Your task to perform on an android device: manage bookmarks in the chrome app Image 0: 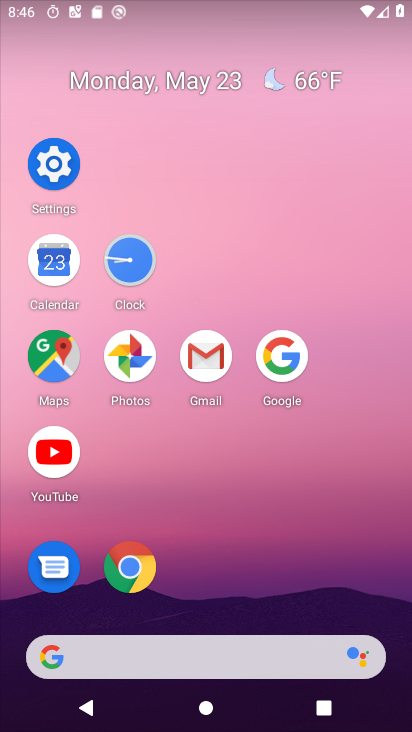
Step 0: click (145, 566)
Your task to perform on an android device: manage bookmarks in the chrome app Image 1: 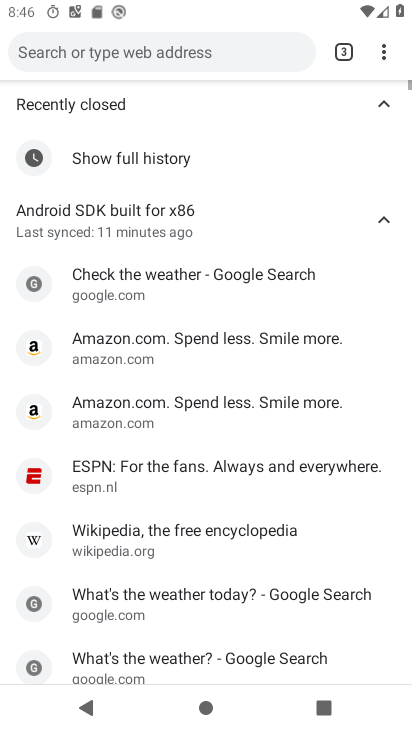
Step 1: click (380, 44)
Your task to perform on an android device: manage bookmarks in the chrome app Image 2: 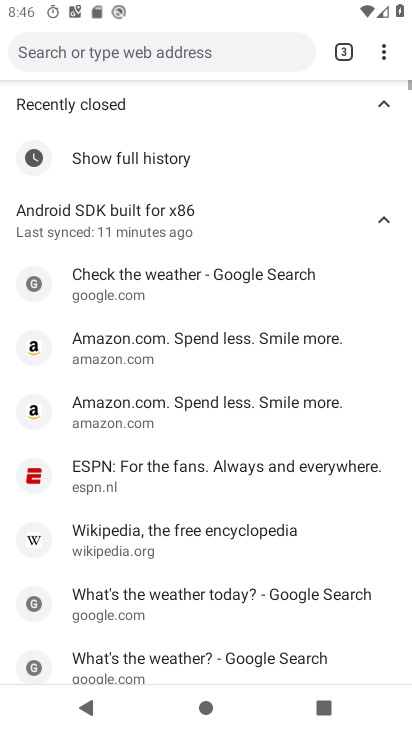
Step 2: click (378, 63)
Your task to perform on an android device: manage bookmarks in the chrome app Image 3: 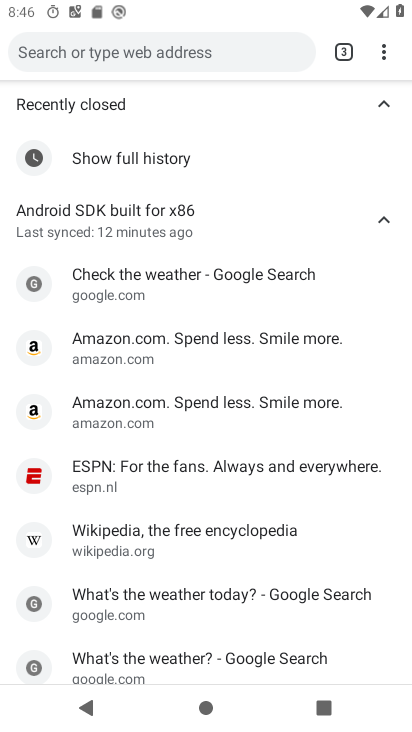
Step 3: click (390, 49)
Your task to perform on an android device: manage bookmarks in the chrome app Image 4: 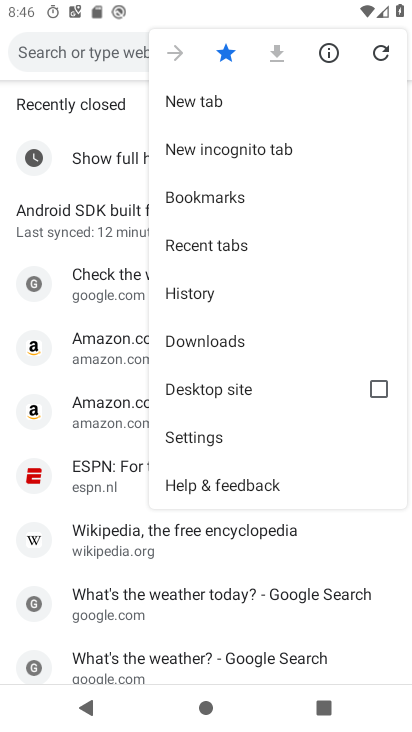
Step 4: click (252, 196)
Your task to perform on an android device: manage bookmarks in the chrome app Image 5: 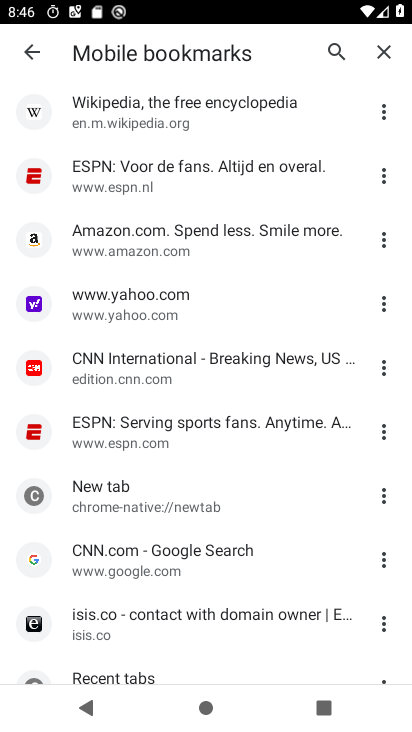
Step 5: click (399, 92)
Your task to perform on an android device: manage bookmarks in the chrome app Image 6: 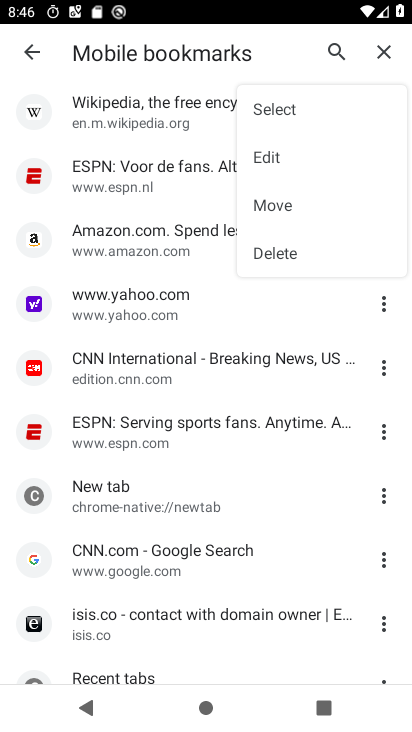
Step 6: click (250, 251)
Your task to perform on an android device: manage bookmarks in the chrome app Image 7: 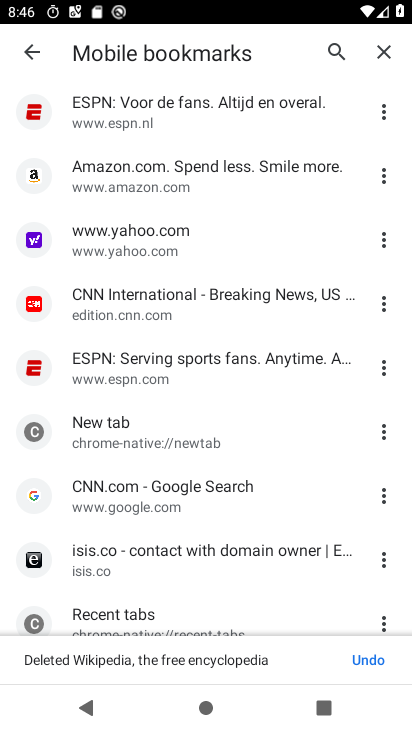
Step 7: task complete